Your task to perform on an android device: Search for seafood restaurants on Google Maps Image 0: 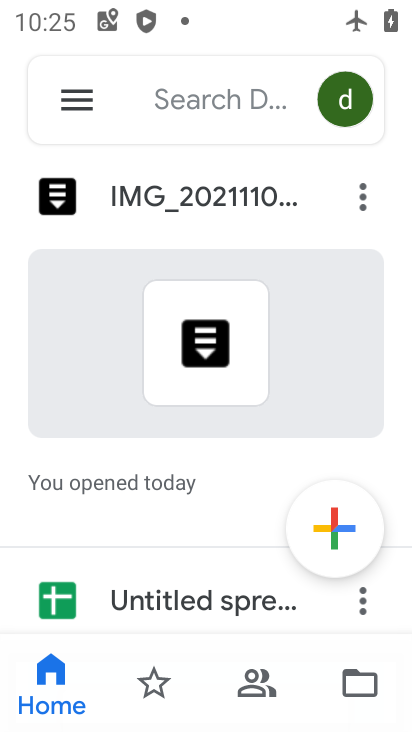
Step 0: press home button
Your task to perform on an android device: Search for seafood restaurants on Google Maps Image 1: 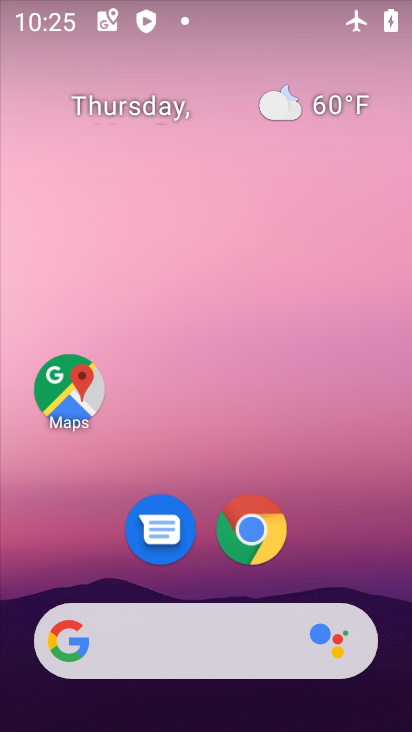
Step 1: drag from (337, 541) to (204, 2)
Your task to perform on an android device: Search for seafood restaurants on Google Maps Image 2: 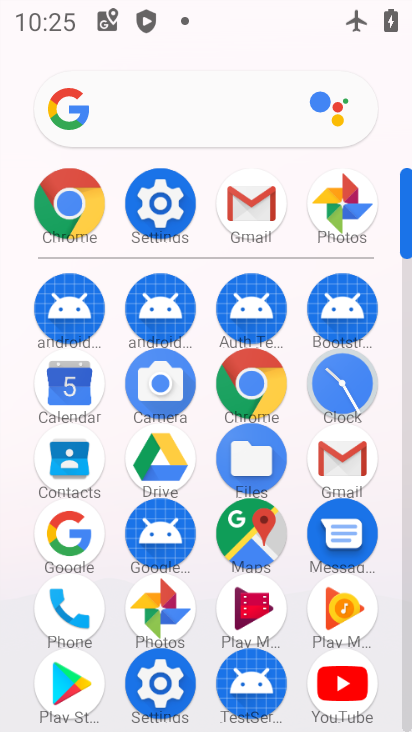
Step 2: click (244, 525)
Your task to perform on an android device: Search for seafood restaurants on Google Maps Image 3: 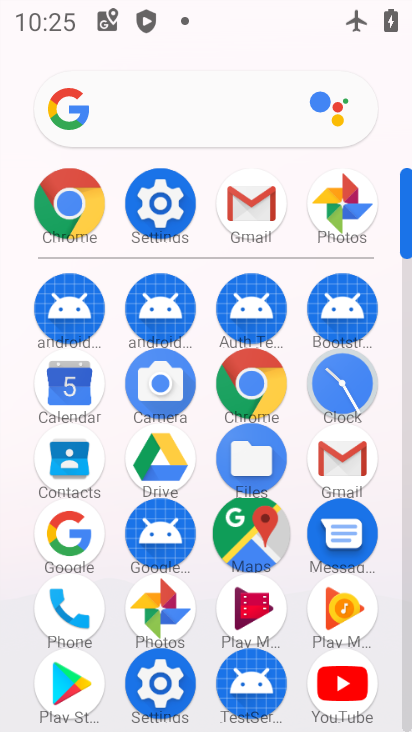
Step 3: click (242, 526)
Your task to perform on an android device: Search for seafood restaurants on Google Maps Image 4: 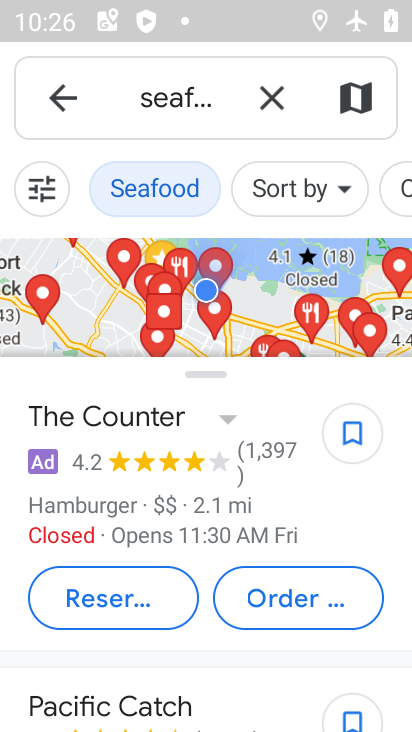
Step 4: task complete